Your task to perform on an android device: open the mobile data screen to see how much data has been used Image 0: 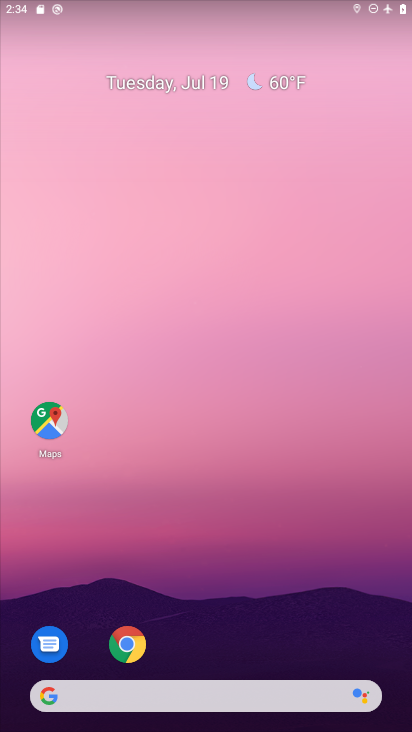
Step 0: drag from (221, 661) to (221, 75)
Your task to perform on an android device: open the mobile data screen to see how much data has been used Image 1: 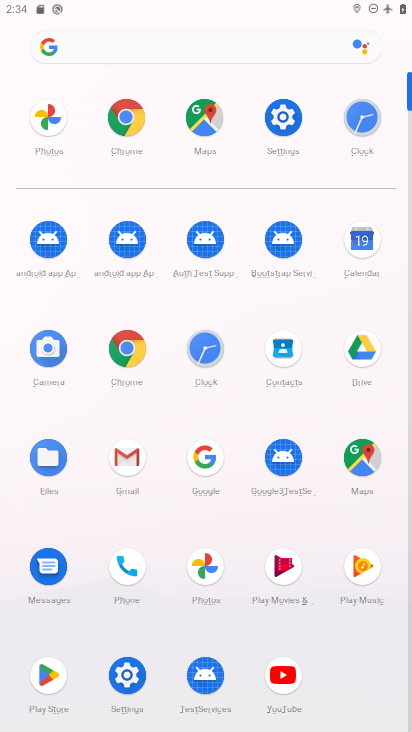
Step 1: click (130, 677)
Your task to perform on an android device: open the mobile data screen to see how much data has been used Image 2: 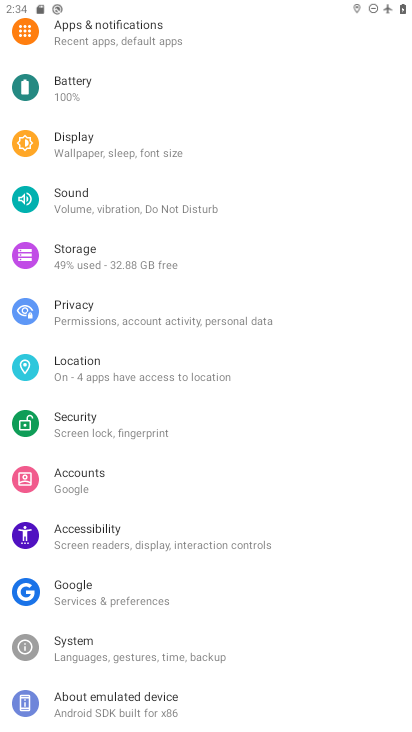
Step 2: drag from (128, 73) to (52, 659)
Your task to perform on an android device: open the mobile data screen to see how much data has been used Image 3: 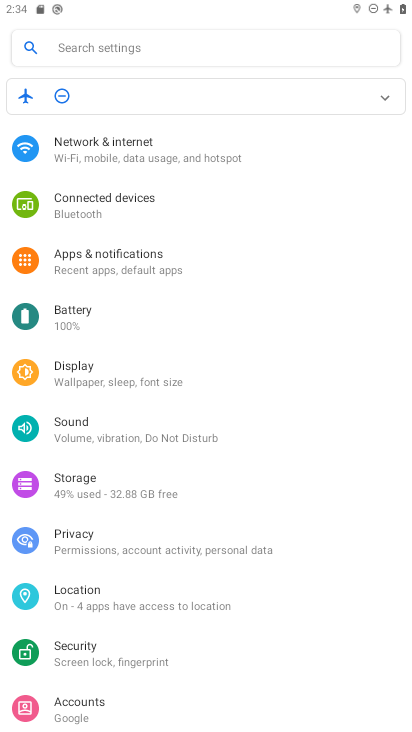
Step 3: click (99, 149)
Your task to perform on an android device: open the mobile data screen to see how much data has been used Image 4: 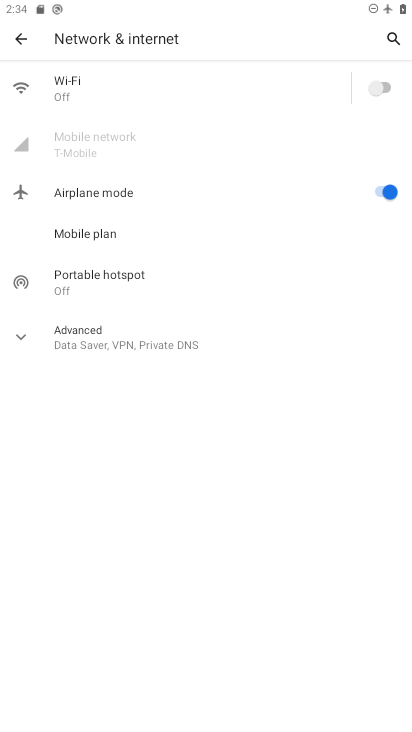
Step 4: task complete